Your task to perform on an android device: Open privacy settings Image 0: 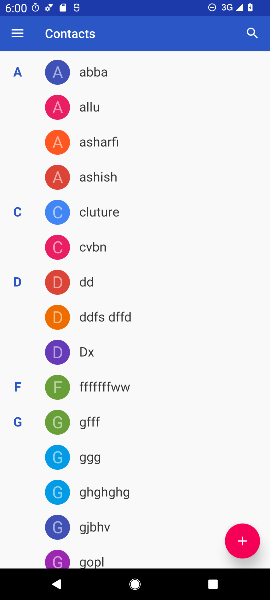
Step 0: press home button
Your task to perform on an android device: Open privacy settings Image 1: 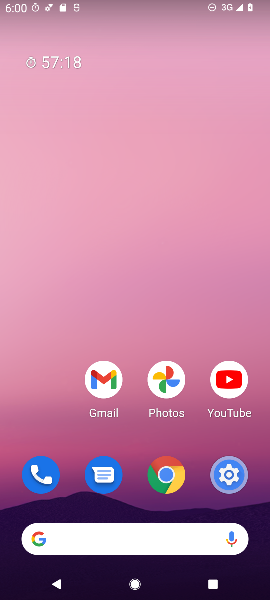
Step 1: drag from (58, 423) to (63, 246)
Your task to perform on an android device: Open privacy settings Image 2: 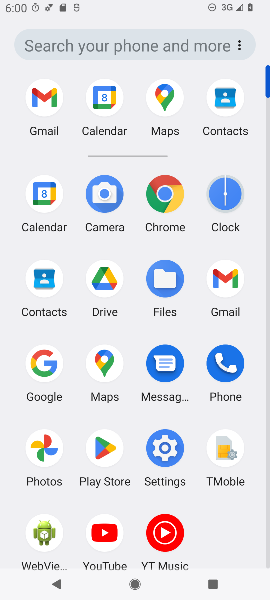
Step 2: click (167, 449)
Your task to perform on an android device: Open privacy settings Image 3: 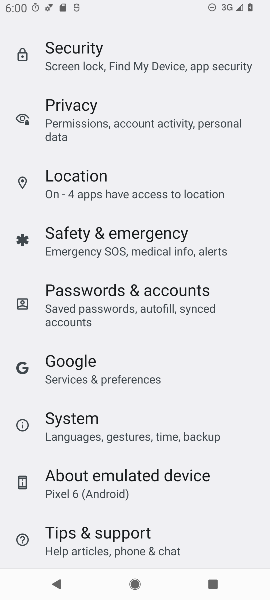
Step 3: drag from (233, 248) to (238, 278)
Your task to perform on an android device: Open privacy settings Image 4: 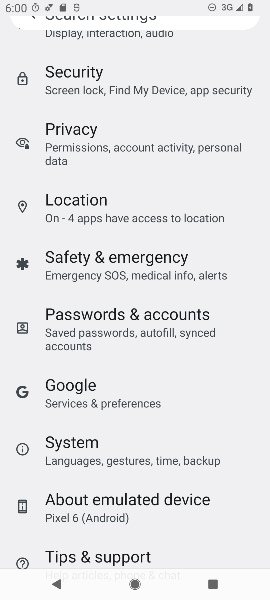
Step 4: drag from (247, 235) to (247, 287)
Your task to perform on an android device: Open privacy settings Image 5: 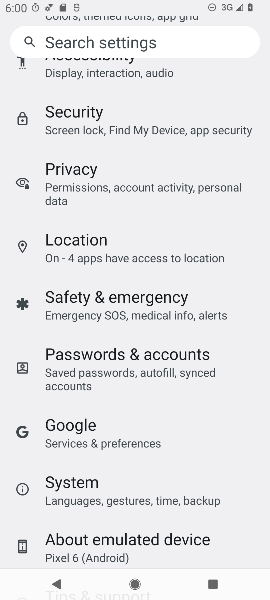
Step 5: drag from (247, 231) to (248, 320)
Your task to perform on an android device: Open privacy settings Image 6: 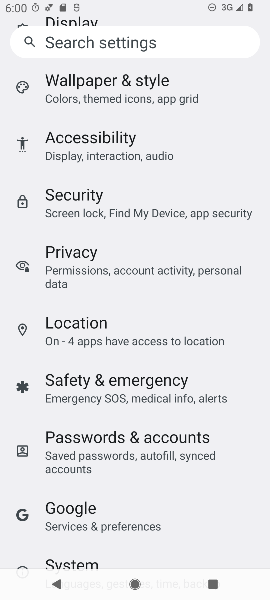
Step 6: drag from (247, 237) to (249, 306)
Your task to perform on an android device: Open privacy settings Image 7: 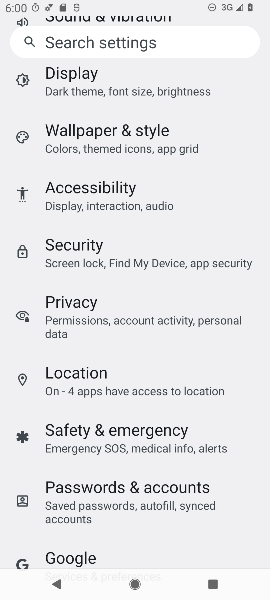
Step 7: drag from (247, 204) to (247, 285)
Your task to perform on an android device: Open privacy settings Image 8: 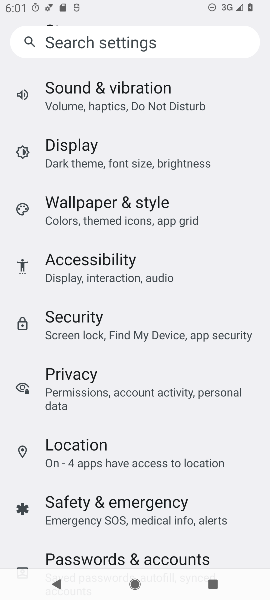
Step 8: drag from (242, 178) to (240, 275)
Your task to perform on an android device: Open privacy settings Image 9: 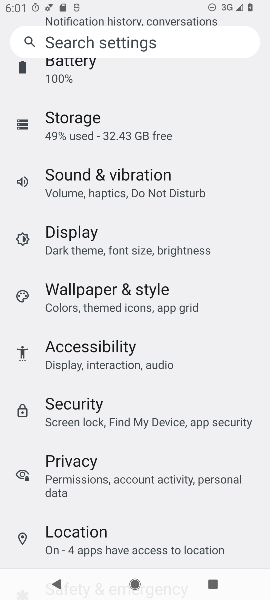
Step 9: drag from (236, 159) to (237, 246)
Your task to perform on an android device: Open privacy settings Image 10: 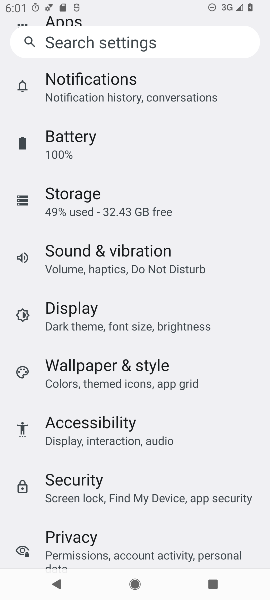
Step 10: drag from (226, 167) to (224, 253)
Your task to perform on an android device: Open privacy settings Image 11: 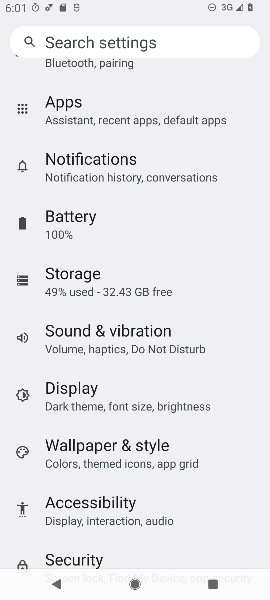
Step 11: drag from (235, 328) to (240, 257)
Your task to perform on an android device: Open privacy settings Image 12: 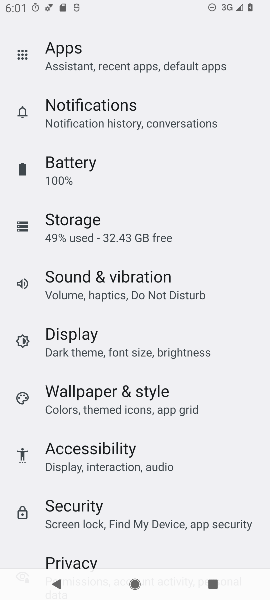
Step 12: drag from (229, 396) to (235, 273)
Your task to perform on an android device: Open privacy settings Image 13: 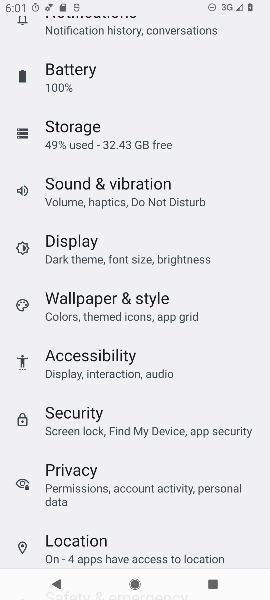
Step 13: drag from (213, 371) to (224, 267)
Your task to perform on an android device: Open privacy settings Image 14: 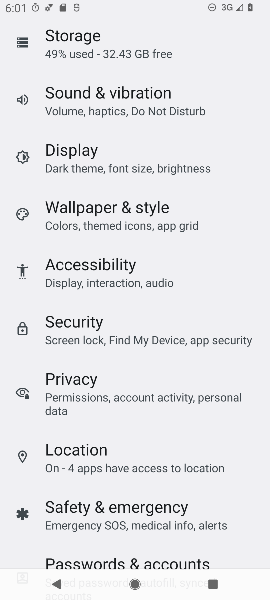
Step 14: drag from (214, 374) to (221, 249)
Your task to perform on an android device: Open privacy settings Image 15: 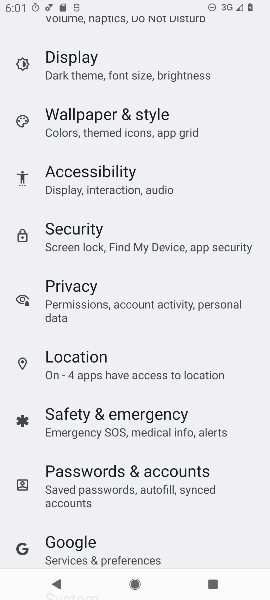
Step 15: click (218, 291)
Your task to perform on an android device: Open privacy settings Image 16: 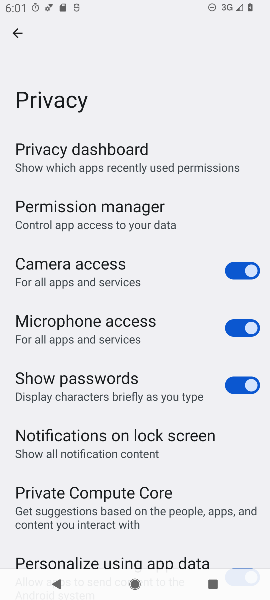
Step 16: task complete